Your task to perform on an android device: Open location settings Image 0: 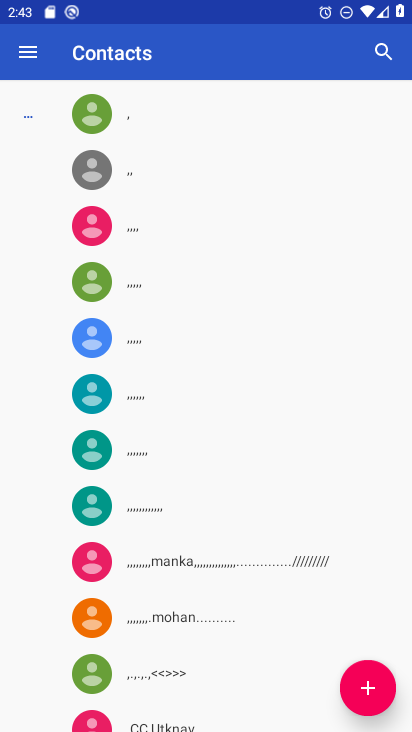
Step 0: press home button
Your task to perform on an android device: Open location settings Image 1: 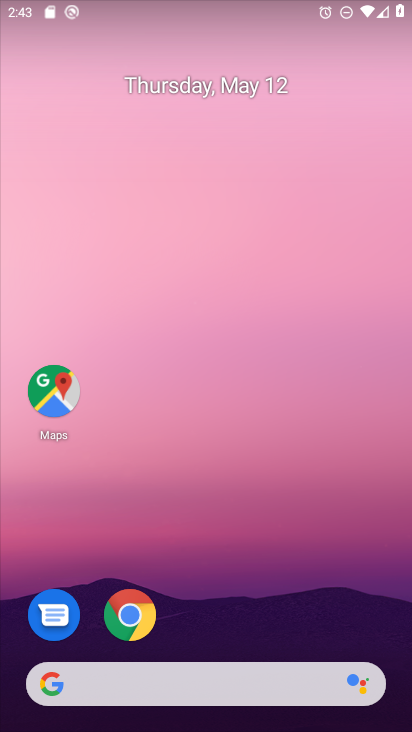
Step 1: drag from (275, 637) to (302, 0)
Your task to perform on an android device: Open location settings Image 2: 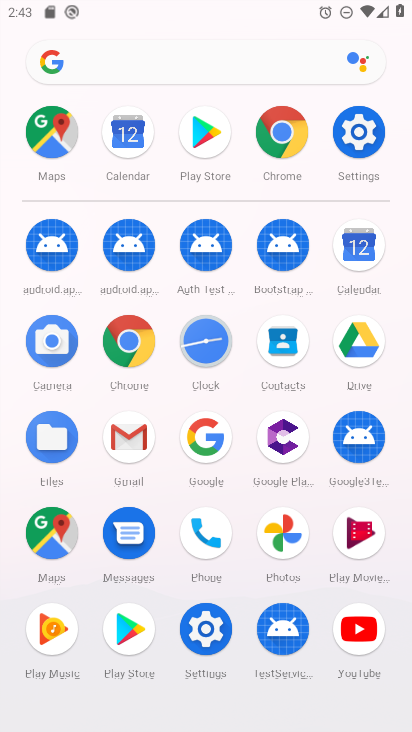
Step 2: click (357, 126)
Your task to perform on an android device: Open location settings Image 3: 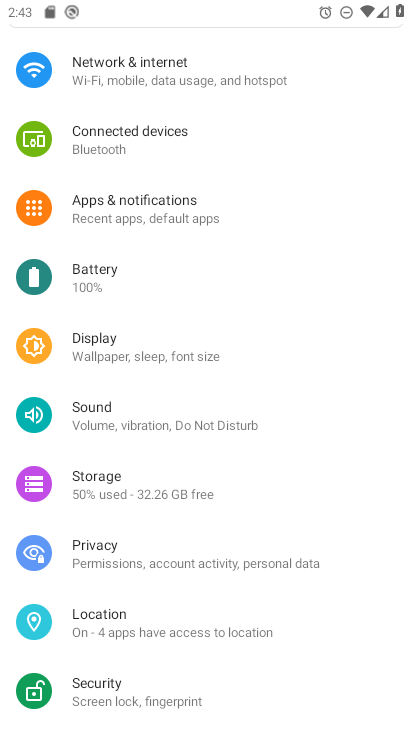
Step 3: click (173, 629)
Your task to perform on an android device: Open location settings Image 4: 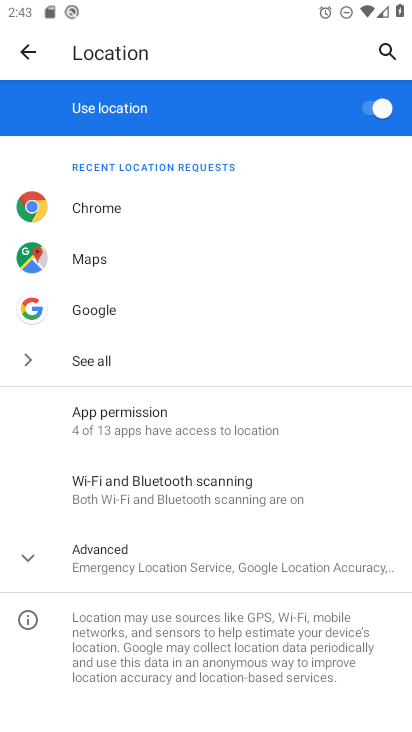
Step 4: task complete